Your task to perform on an android device: Search for Italian restaurants on Maps Image 0: 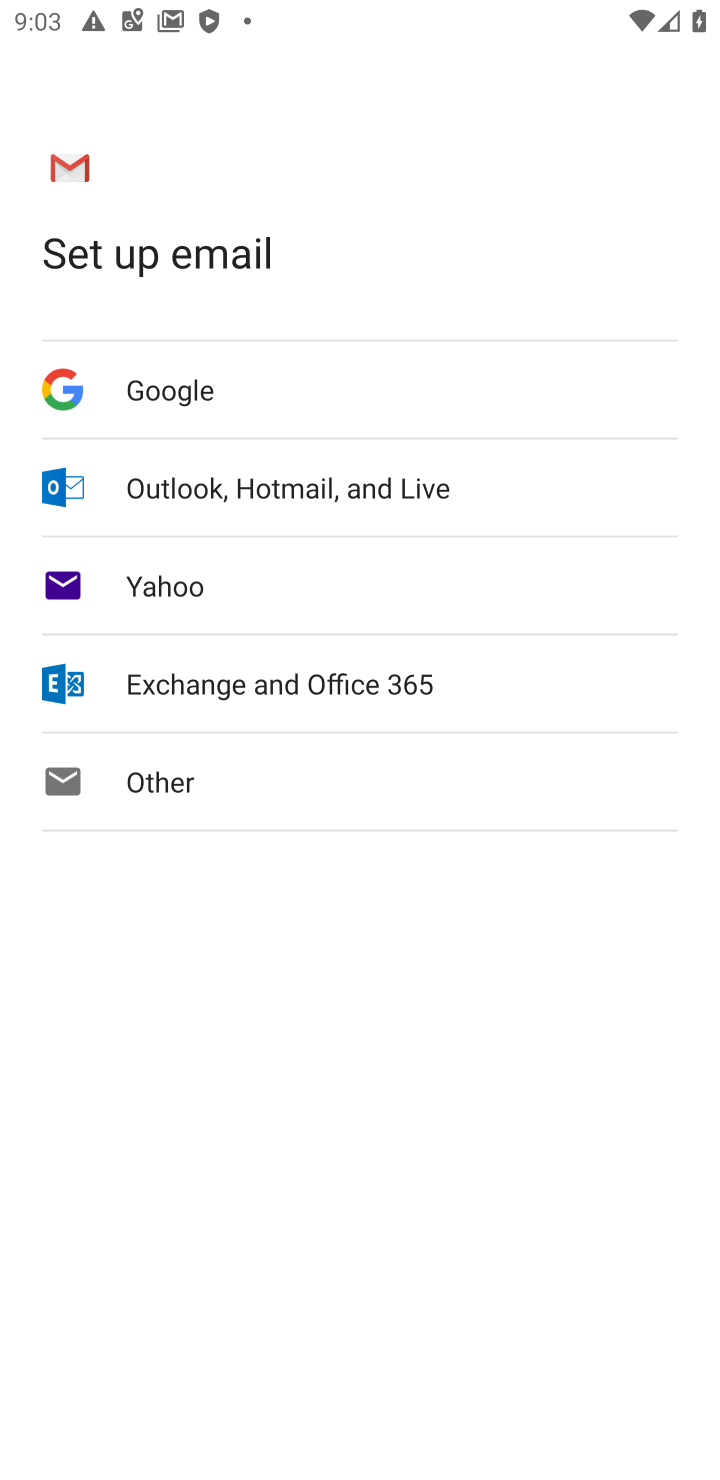
Step 0: press home button
Your task to perform on an android device: Search for Italian restaurants on Maps Image 1: 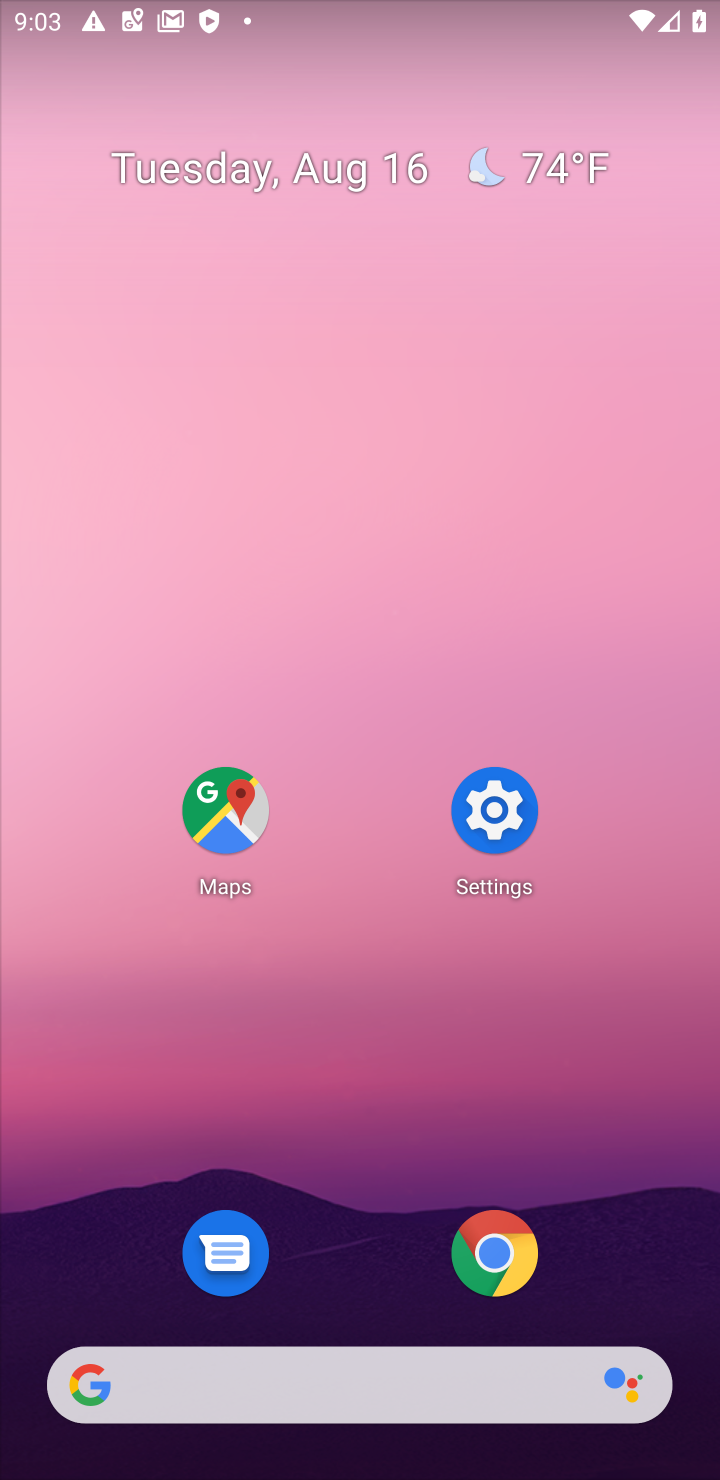
Step 1: click (224, 816)
Your task to perform on an android device: Search for Italian restaurants on Maps Image 2: 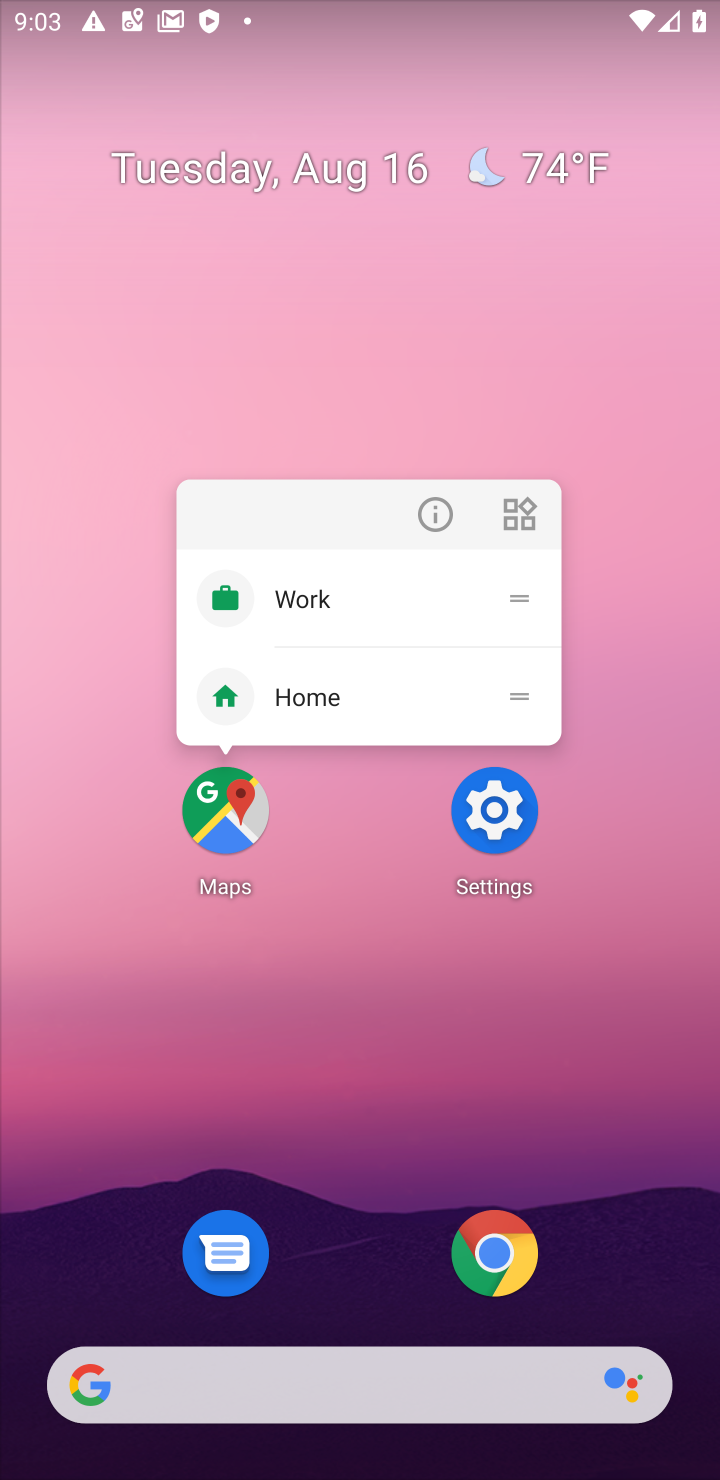
Step 2: click (224, 820)
Your task to perform on an android device: Search for Italian restaurants on Maps Image 3: 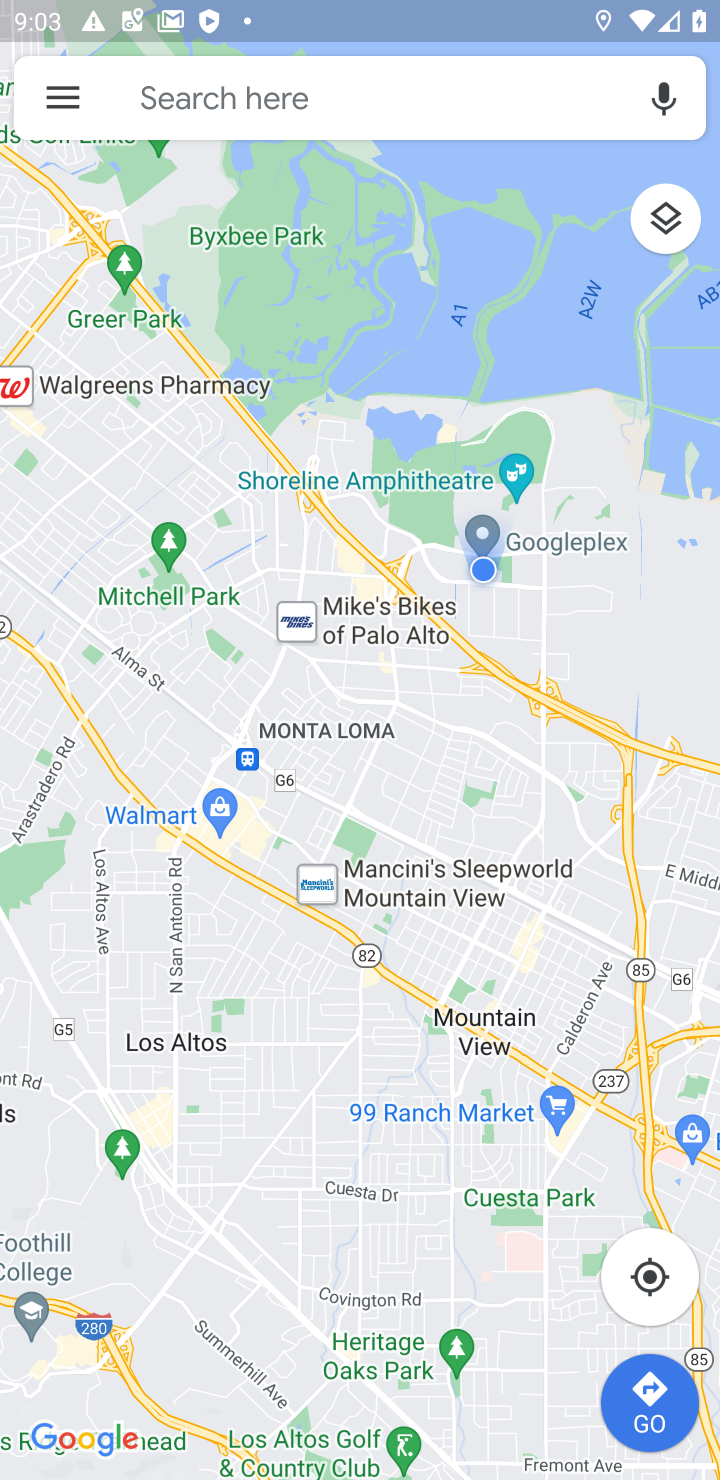
Step 3: click (217, 91)
Your task to perform on an android device: Search for Italian restaurants on Maps Image 4: 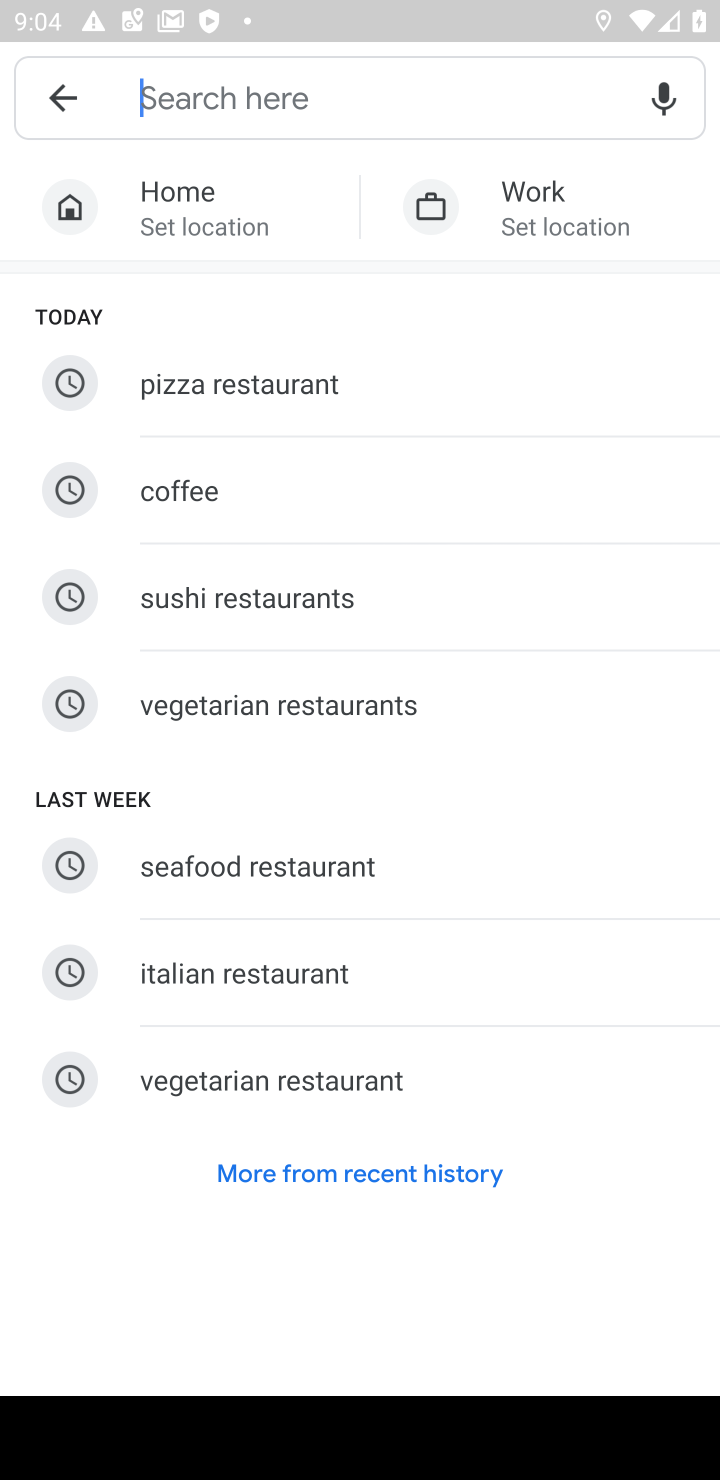
Step 4: click (310, 971)
Your task to perform on an android device: Search for Italian restaurants on Maps Image 5: 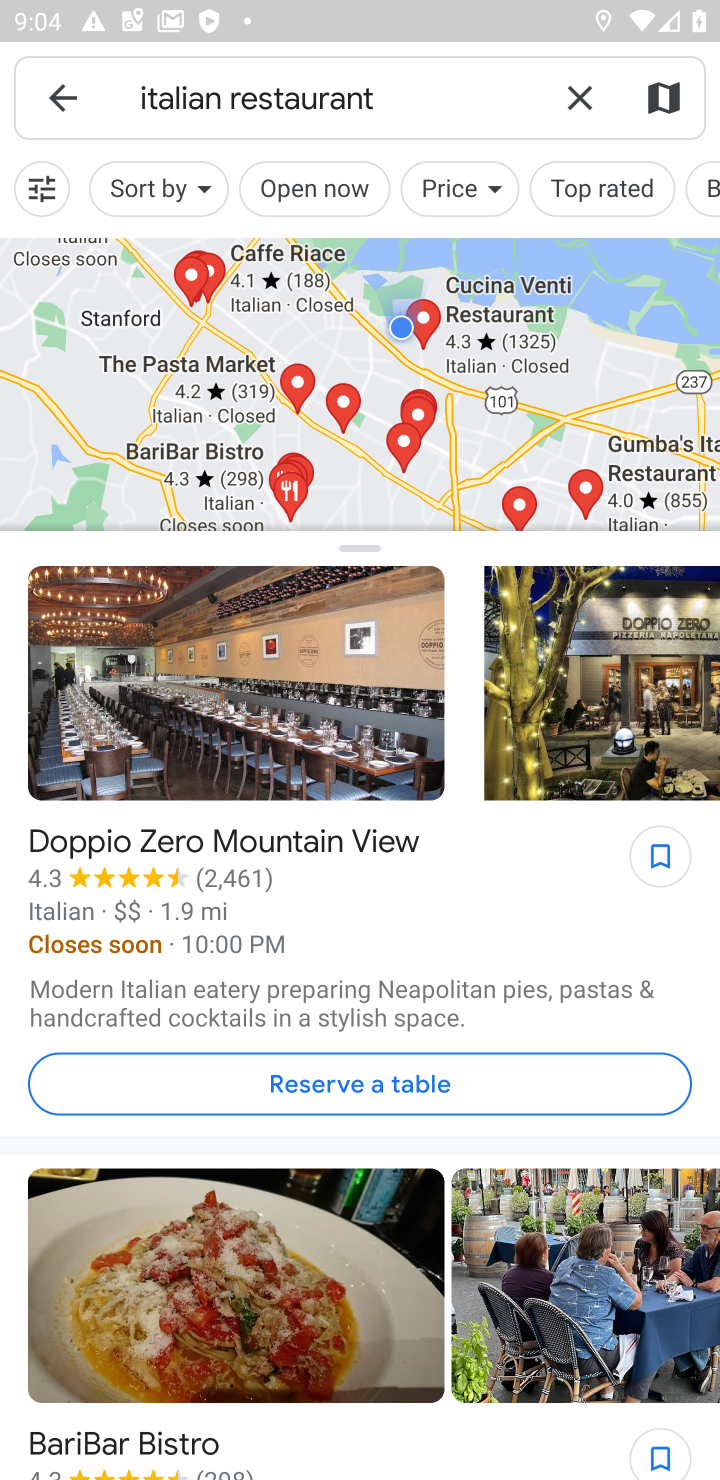
Step 5: task complete